Your task to perform on an android device: Find coffee shops on Maps Image 0: 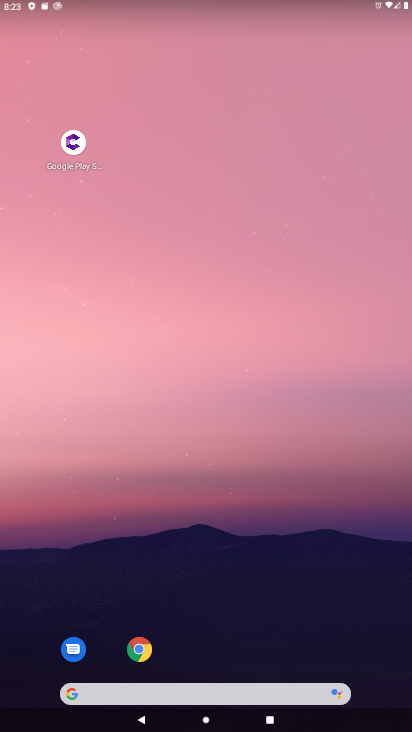
Step 0: drag from (388, 642) to (357, 166)
Your task to perform on an android device: Find coffee shops on Maps Image 1: 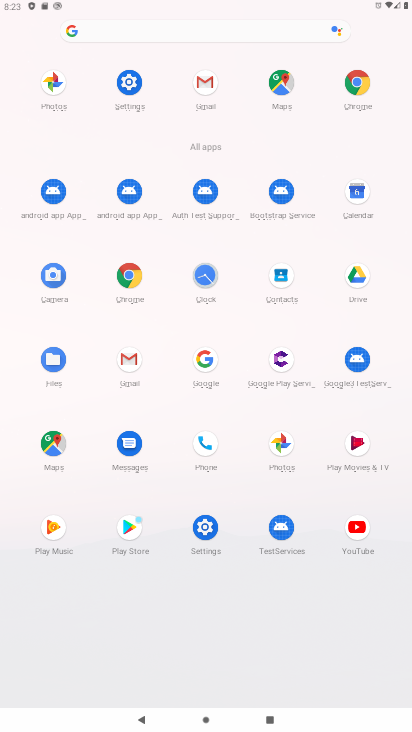
Step 1: click (53, 441)
Your task to perform on an android device: Find coffee shops on Maps Image 2: 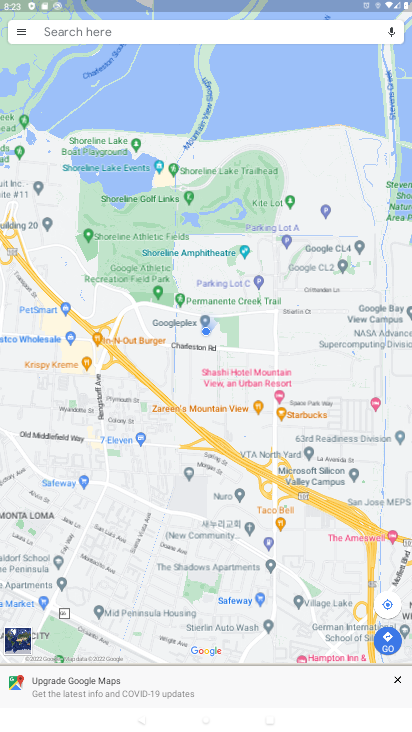
Step 2: click (102, 29)
Your task to perform on an android device: Find coffee shops on Maps Image 3: 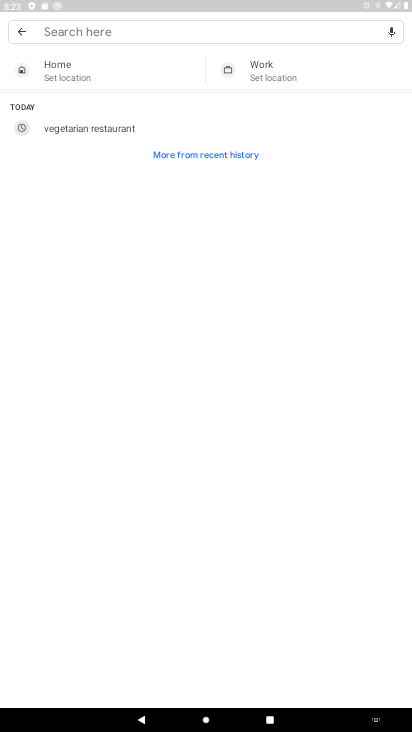
Step 3: type "coffee shop"
Your task to perform on an android device: Find coffee shops on Maps Image 4: 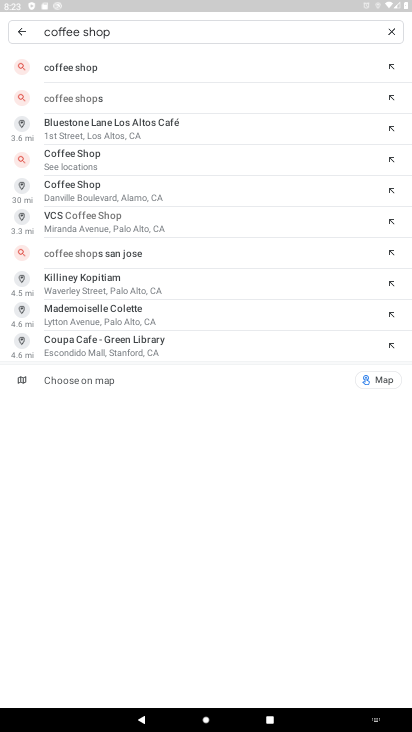
Step 4: click (100, 64)
Your task to perform on an android device: Find coffee shops on Maps Image 5: 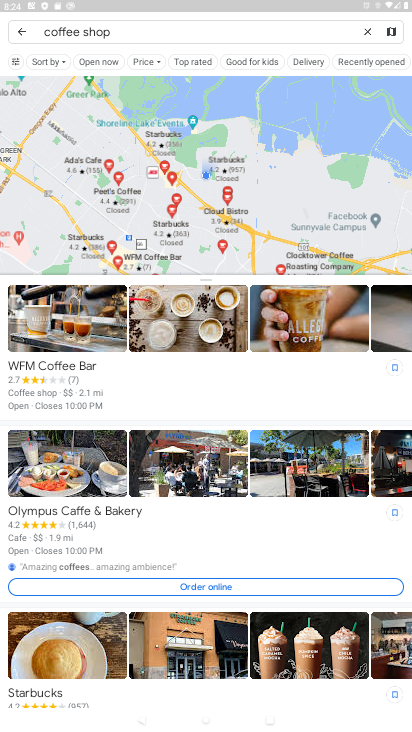
Step 5: task complete